Your task to perform on an android device: Open Amazon Image 0: 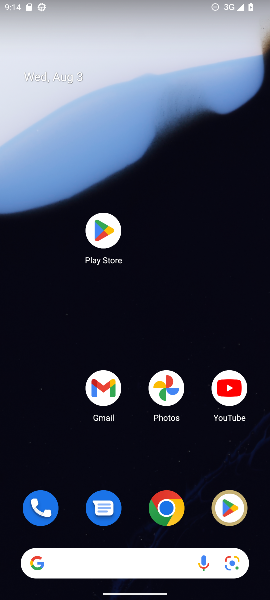
Step 0: click (162, 514)
Your task to perform on an android device: Open Amazon Image 1: 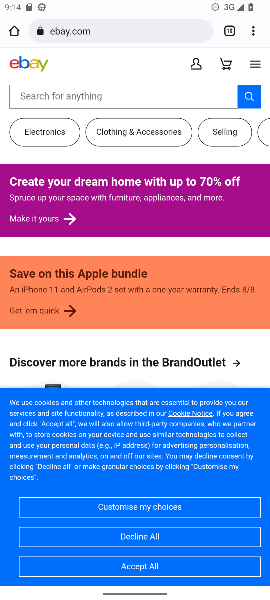
Step 1: click (231, 27)
Your task to perform on an android device: Open Amazon Image 2: 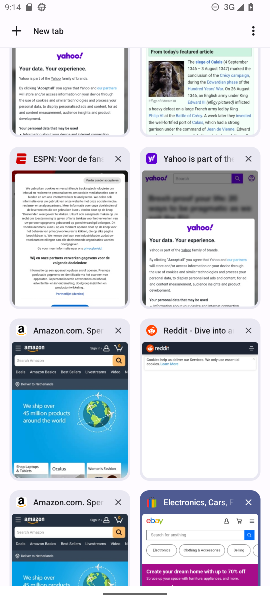
Step 2: click (8, 28)
Your task to perform on an android device: Open Amazon Image 3: 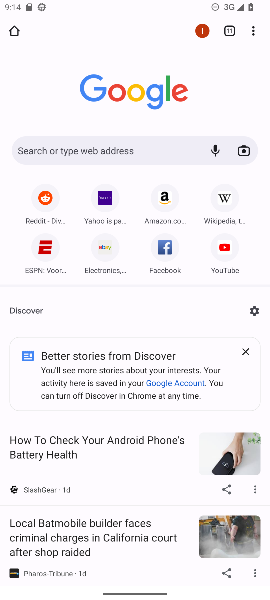
Step 3: click (162, 200)
Your task to perform on an android device: Open Amazon Image 4: 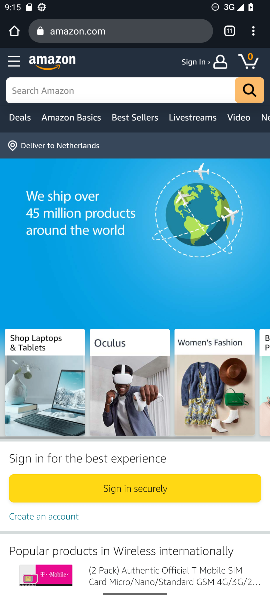
Step 4: task complete